Your task to perform on an android device: Open the stopwatch Image 0: 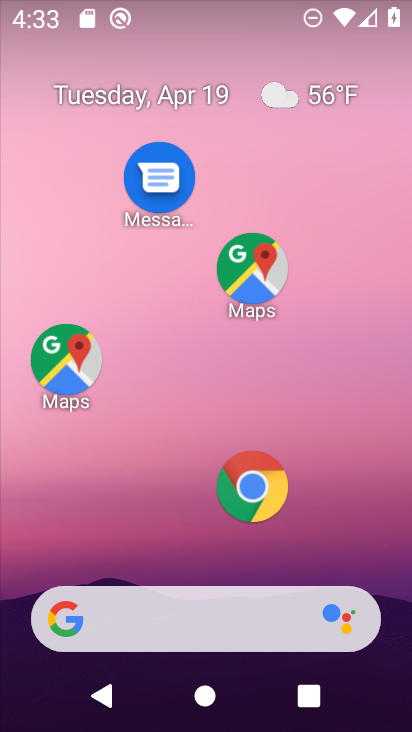
Step 0: drag from (220, 547) to (262, 143)
Your task to perform on an android device: Open the stopwatch Image 1: 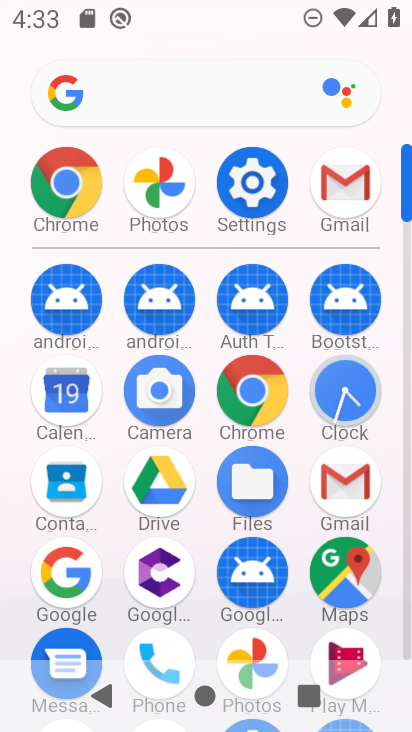
Step 1: click (357, 398)
Your task to perform on an android device: Open the stopwatch Image 2: 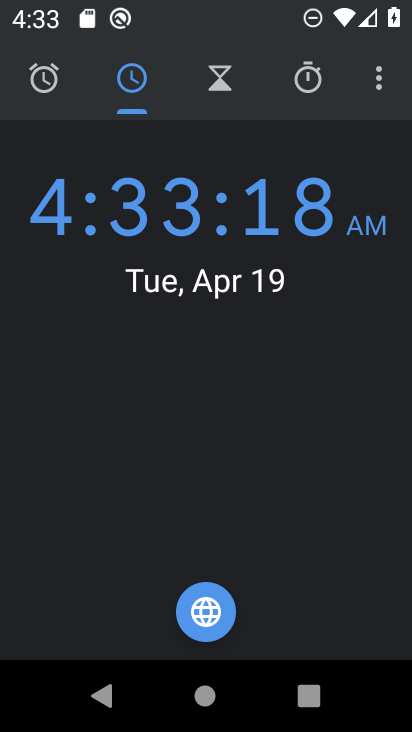
Step 2: click (301, 107)
Your task to perform on an android device: Open the stopwatch Image 3: 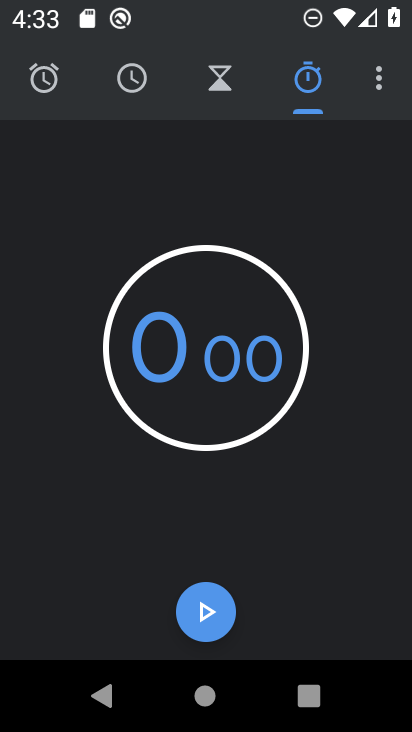
Step 3: task complete